Your task to perform on an android device: turn off location history Image 0: 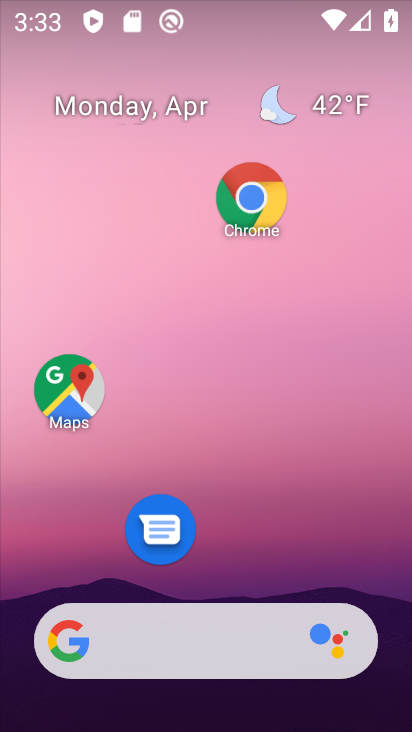
Step 0: drag from (265, 335) to (265, 136)
Your task to perform on an android device: turn off location history Image 1: 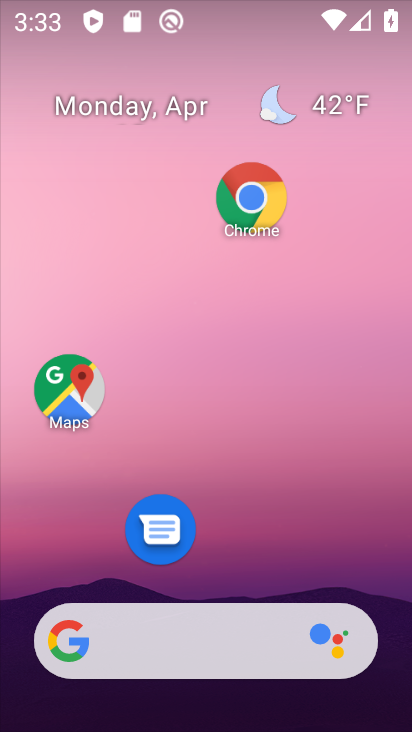
Step 1: drag from (237, 475) to (226, 59)
Your task to perform on an android device: turn off location history Image 2: 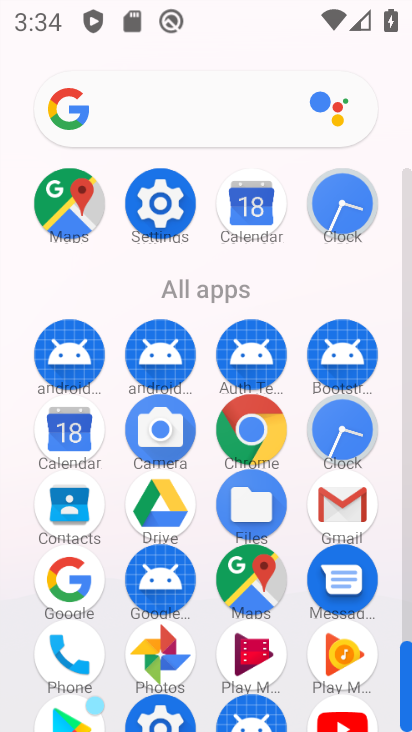
Step 2: click (150, 190)
Your task to perform on an android device: turn off location history Image 3: 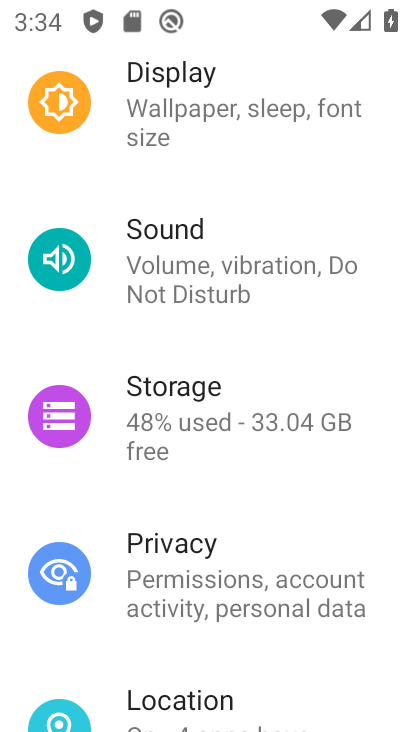
Step 3: drag from (261, 575) to (262, 274)
Your task to perform on an android device: turn off location history Image 4: 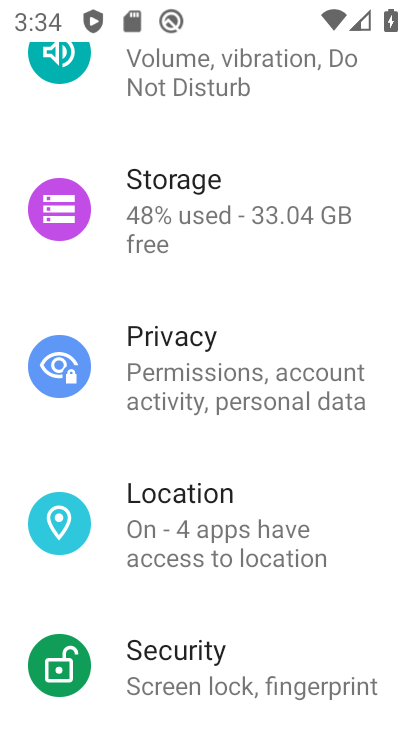
Step 4: click (228, 487)
Your task to perform on an android device: turn off location history Image 5: 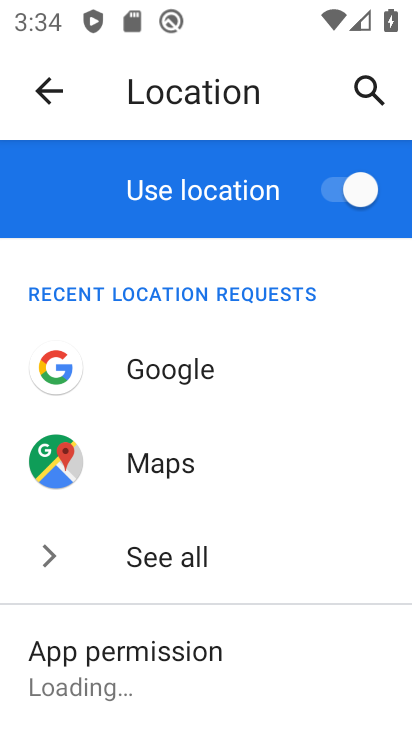
Step 5: drag from (243, 559) to (250, 258)
Your task to perform on an android device: turn off location history Image 6: 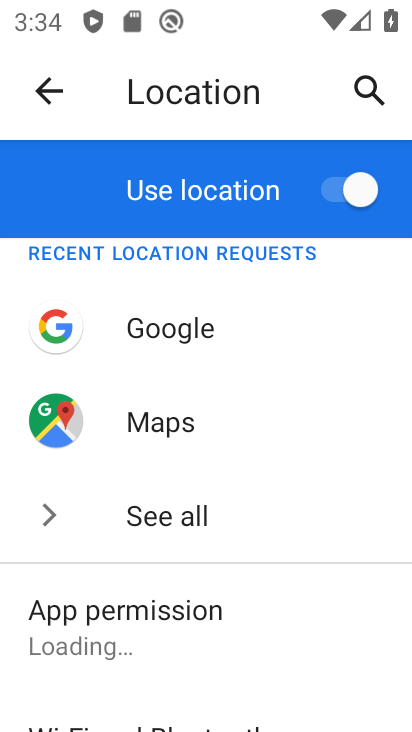
Step 6: drag from (241, 529) to (241, 229)
Your task to perform on an android device: turn off location history Image 7: 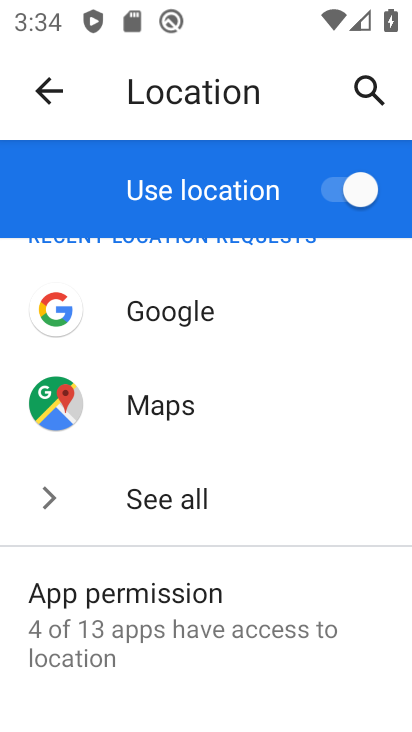
Step 7: drag from (227, 562) to (222, 352)
Your task to perform on an android device: turn off location history Image 8: 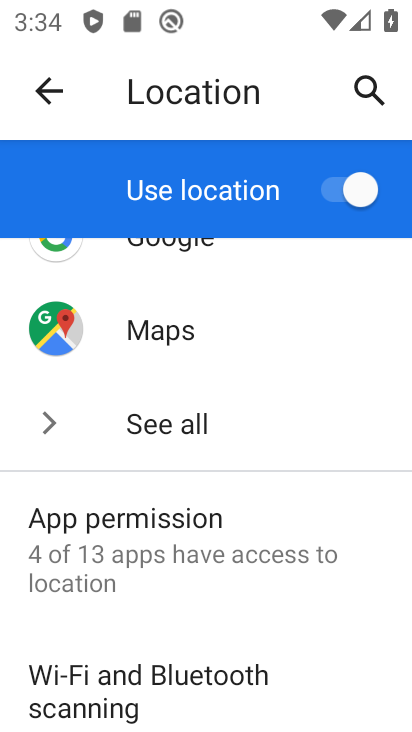
Step 8: drag from (202, 557) to (202, 351)
Your task to perform on an android device: turn off location history Image 9: 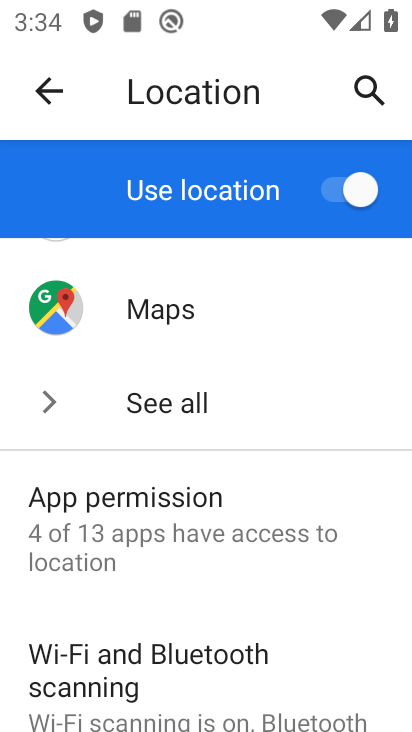
Step 9: drag from (168, 602) to (181, 314)
Your task to perform on an android device: turn off location history Image 10: 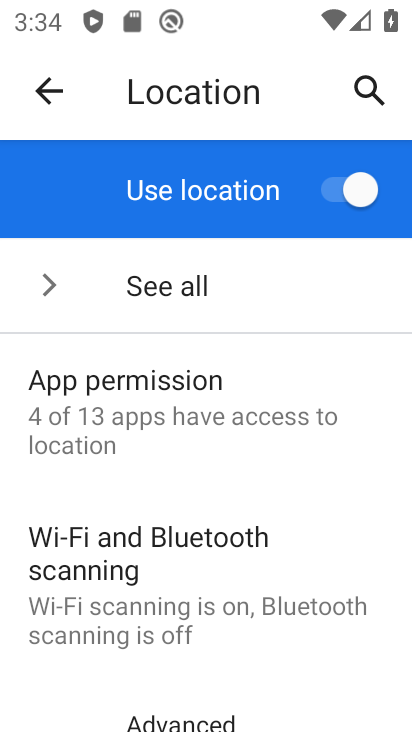
Step 10: drag from (160, 582) to (177, 331)
Your task to perform on an android device: turn off location history Image 11: 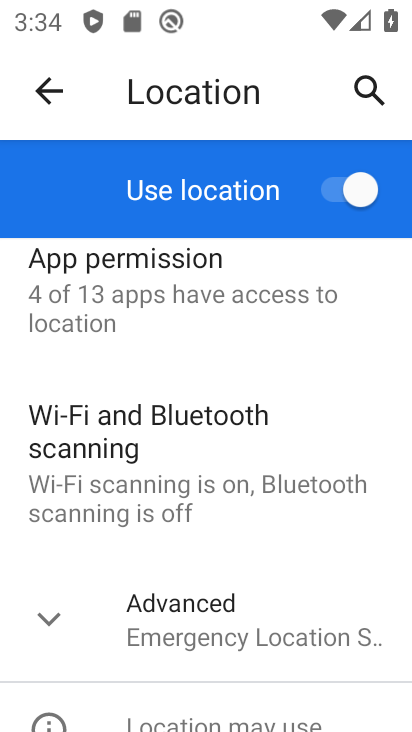
Step 11: click (185, 610)
Your task to perform on an android device: turn off location history Image 12: 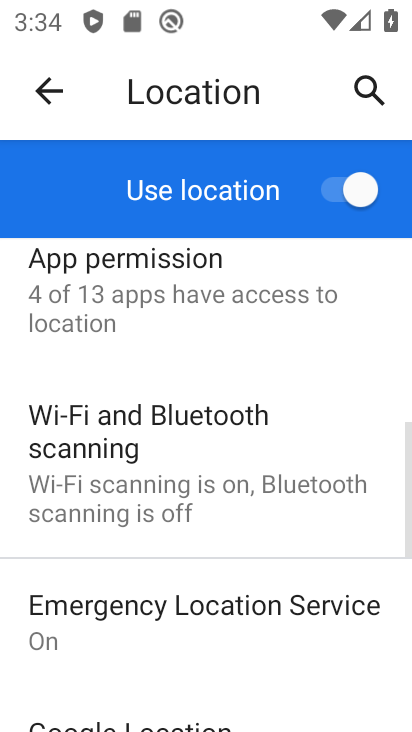
Step 12: drag from (198, 550) to (196, 219)
Your task to perform on an android device: turn off location history Image 13: 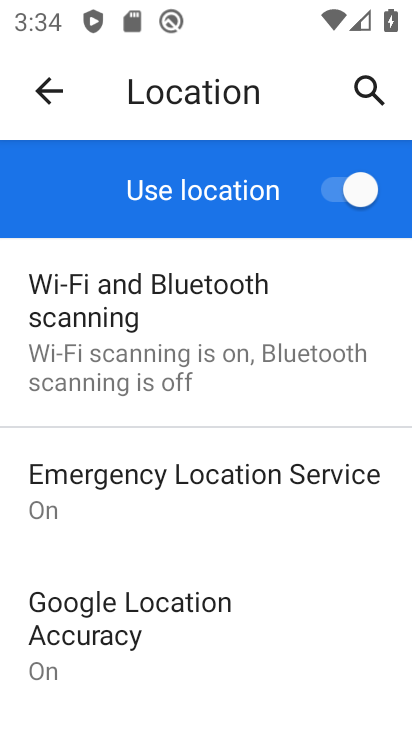
Step 13: drag from (247, 562) to (260, 343)
Your task to perform on an android device: turn off location history Image 14: 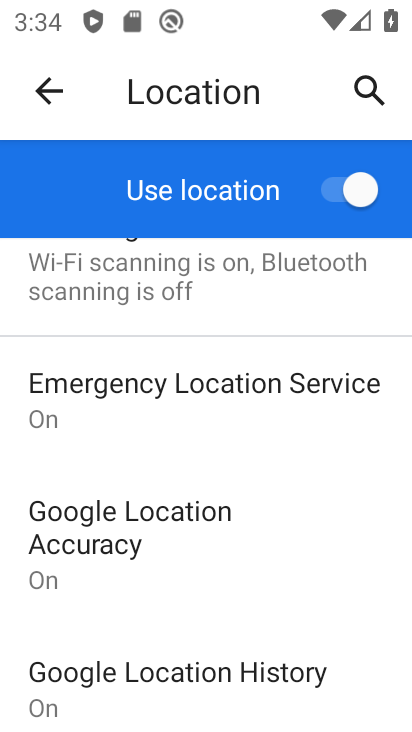
Step 14: click (240, 681)
Your task to perform on an android device: turn off location history Image 15: 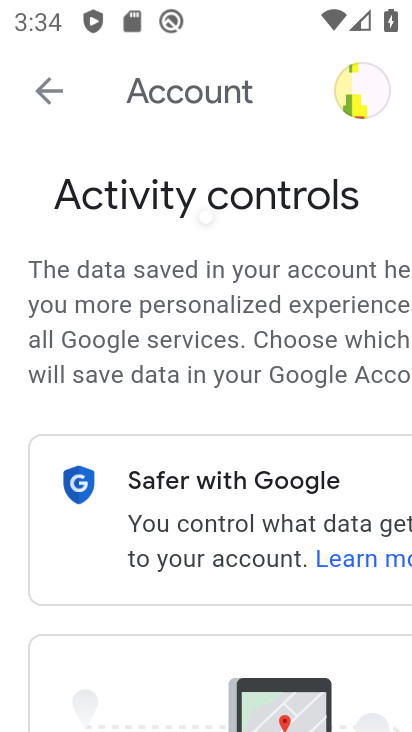
Step 15: drag from (167, 463) to (174, 280)
Your task to perform on an android device: turn off location history Image 16: 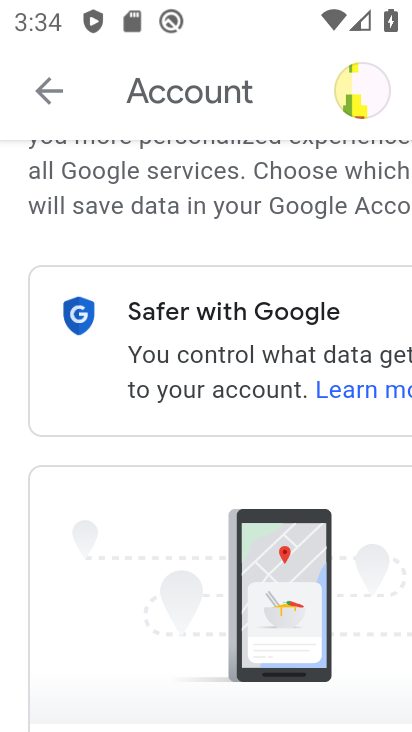
Step 16: drag from (178, 554) to (168, 262)
Your task to perform on an android device: turn off location history Image 17: 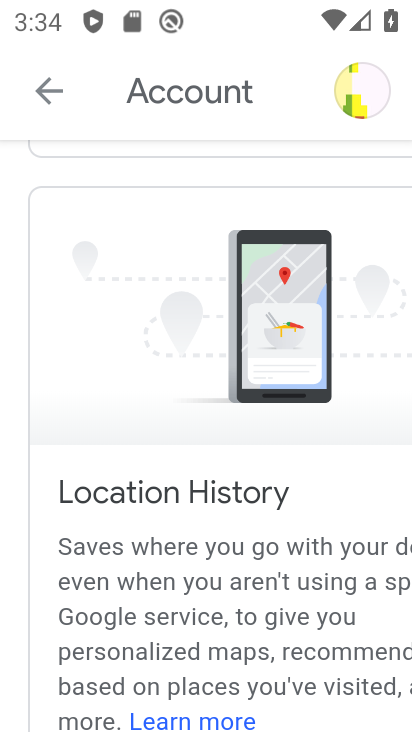
Step 17: drag from (163, 566) to (162, 263)
Your task to perform on an android device: turn off location history Image 18: 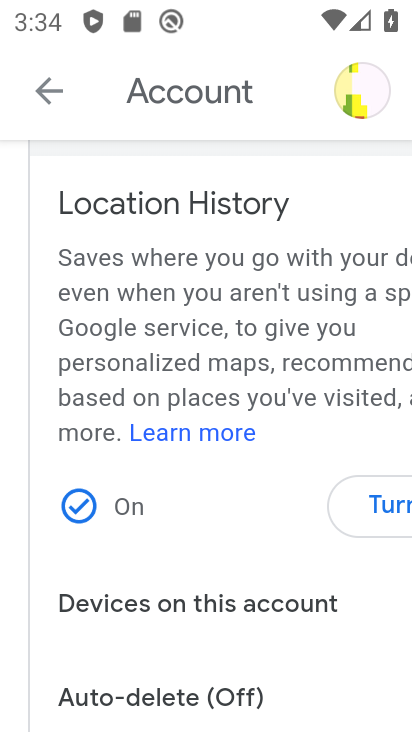
Step 18: click (352, 507)
Your task to perform on an android device: turn off location history Image 19: 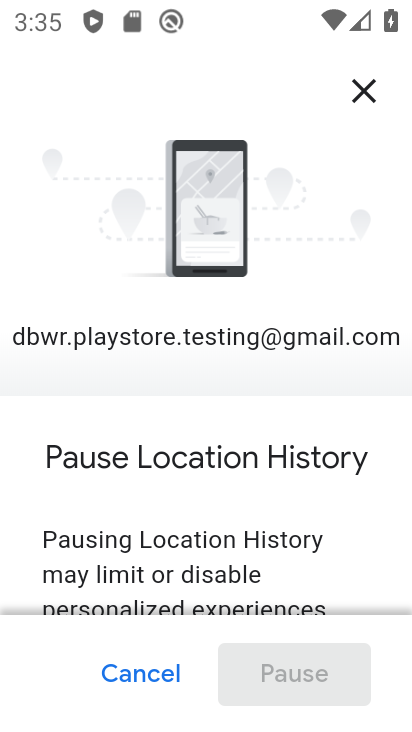
Step 19: drag from (255, 419) to (201, 272)
Your task to perform on an android device: turn off location history Image 20: 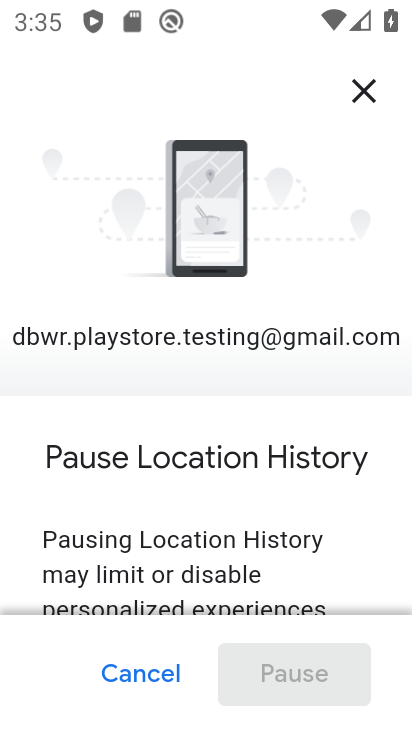
Step 20: drag from (250, 501) to (218, 261)
Your task to perform on an android device: turn off location history Image 21: 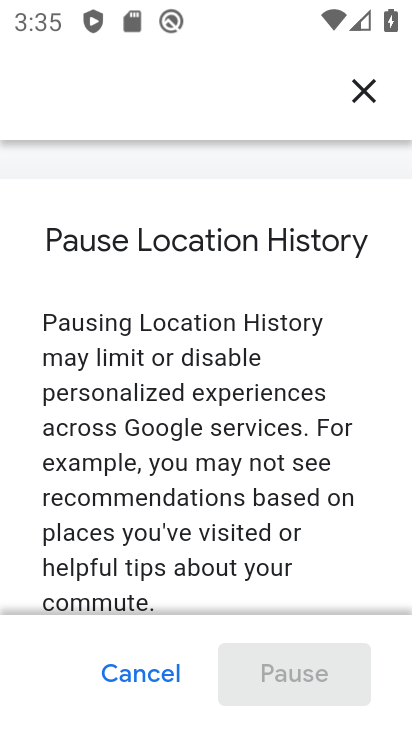
Step 21: drag from (220, 544) to (194, 240)
Your task to perform on an android device: turn off location history Image 22: 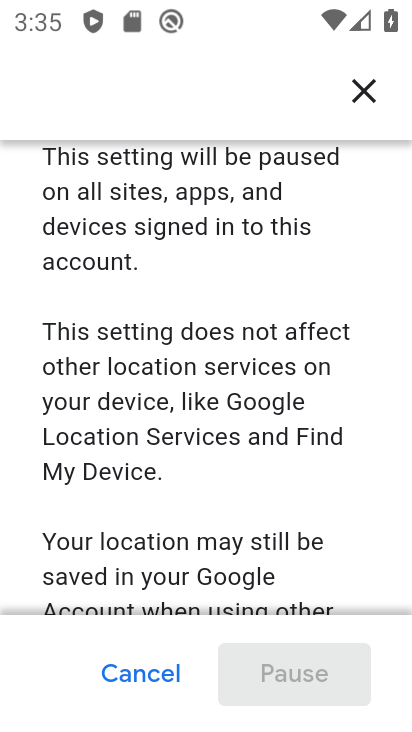
Step 22: drag from (272, 610) to (254, 406)
Your task to perform on an android device: turn off location history Image 23: 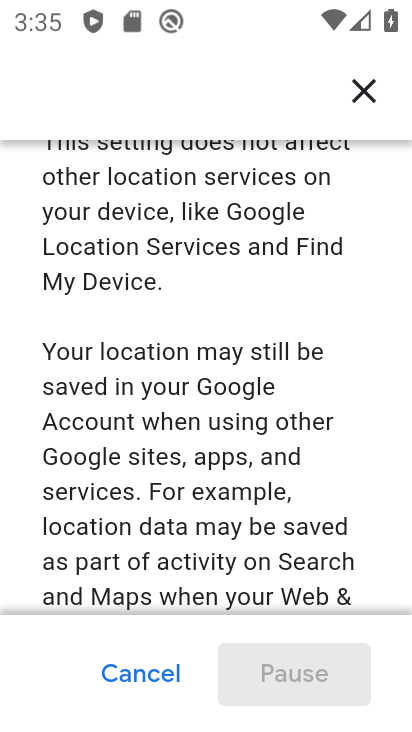
Step 23: drag from (248, 590) to (244, 241)
Your task to perform on an android device: turn off location history Image 24: 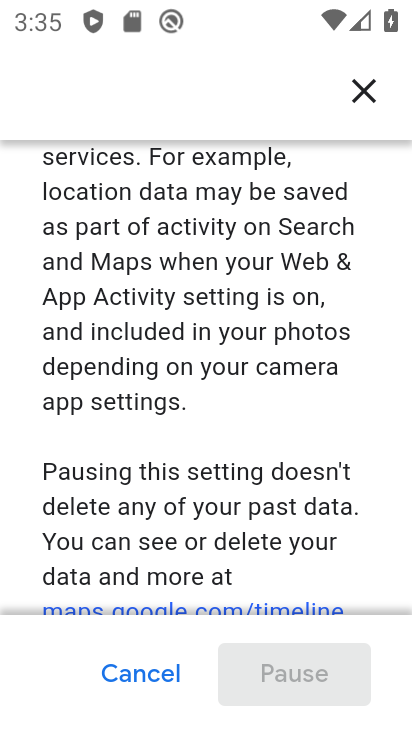
Step 24: drag from (251, 550) to (248, 189)
Your task to perform on an android device: turn off location history Image 25: 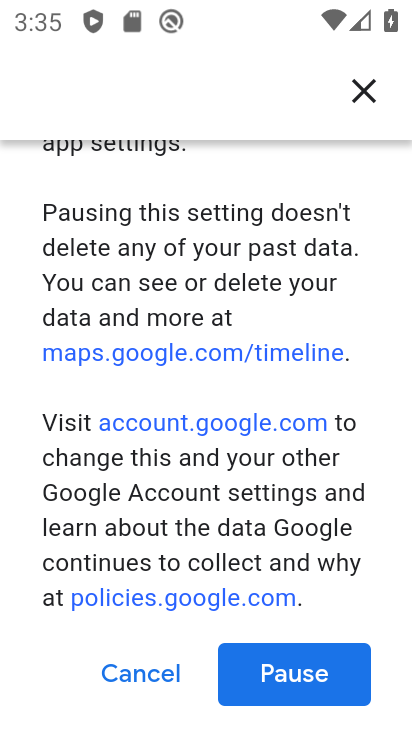
Step 25: click (272, 671)
Your task to perform on an android device: turn off location history Image 26: 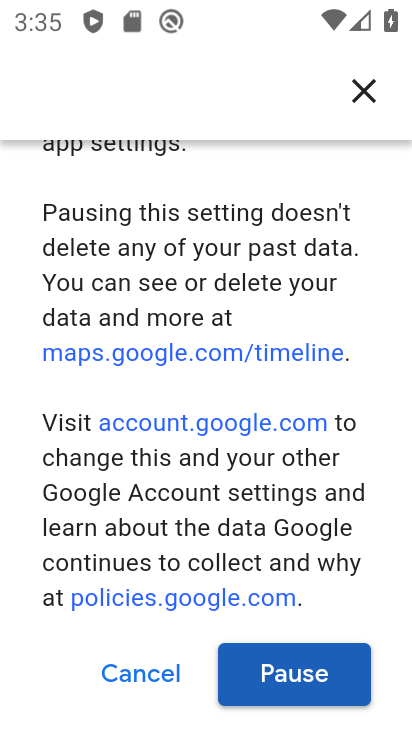
Step 26: click (341, 658)
Your task to perform on an android device: turn off location history Image 27: 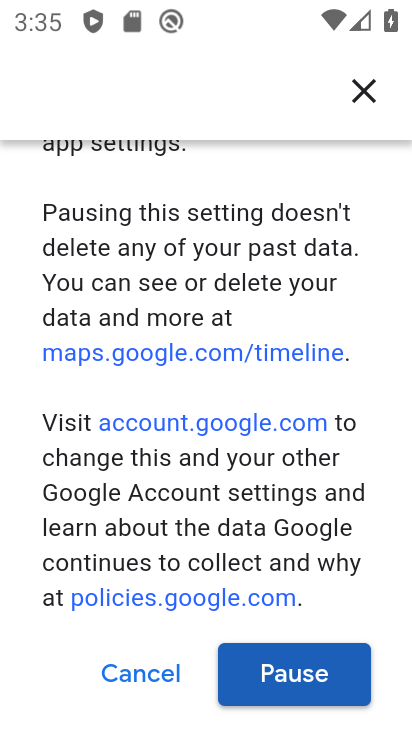
Step 27: click (281, 667)
Your task to perform on an android device: turn off location history Image 28: 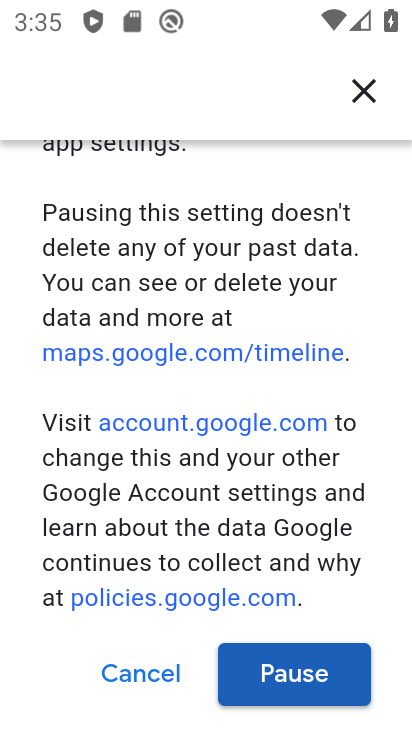
Step 28: click (248, 684)
Your task to perform on an android device: turn off location history Image 29: 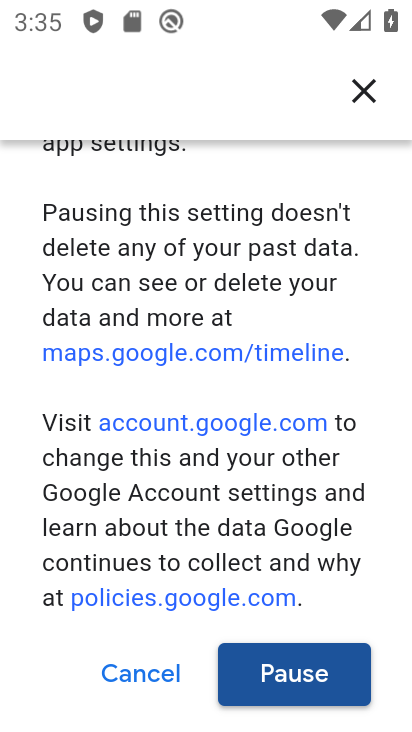
Step 29: task complete